Your task to perform on an android device: Open settings Image 0: 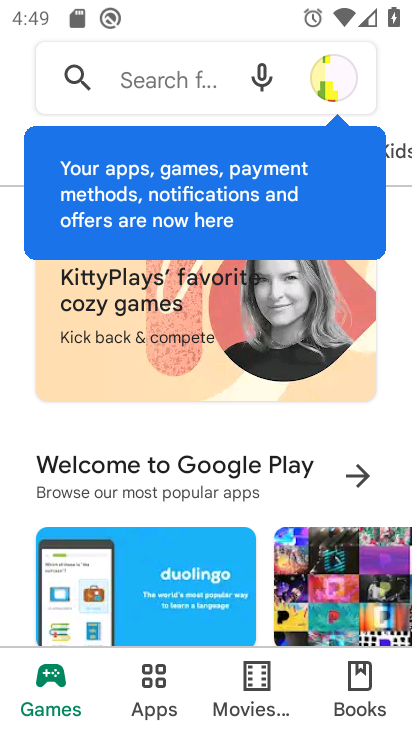
Step 0: press home button
Your task to perform on an android device: Open settings Image 1: 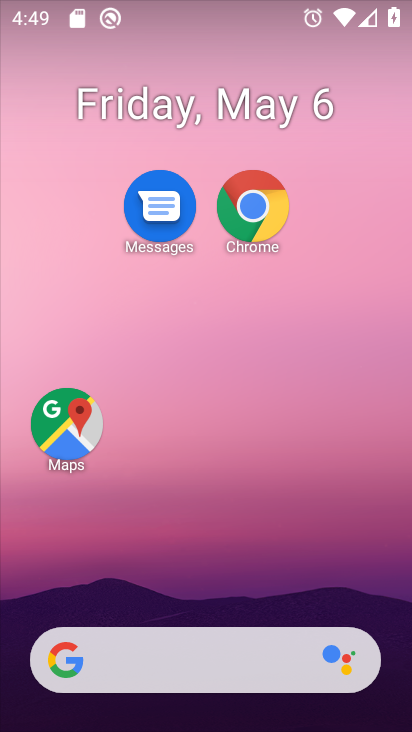
Step 1: drag from (182, 630) to (178, 249)
Your task to perform on an android device: Open settings Image 2: 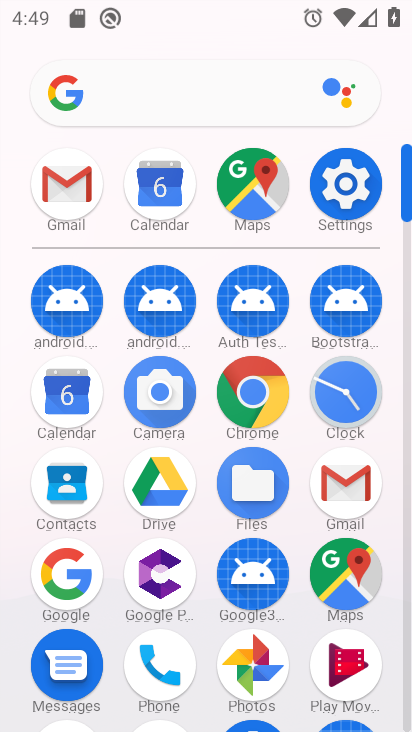
Step 2: click (355, 177)
Your task to perform on an android device: Open settings Image 3: 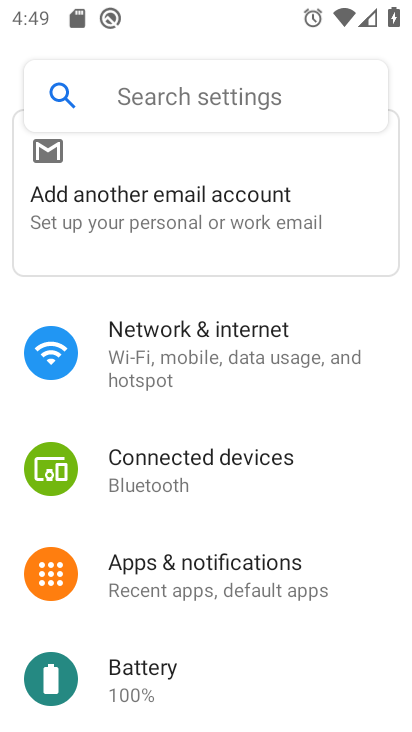
Step 3: task complete